Your task to perform on an android device: toggle data saver in the chrome app Image 0: 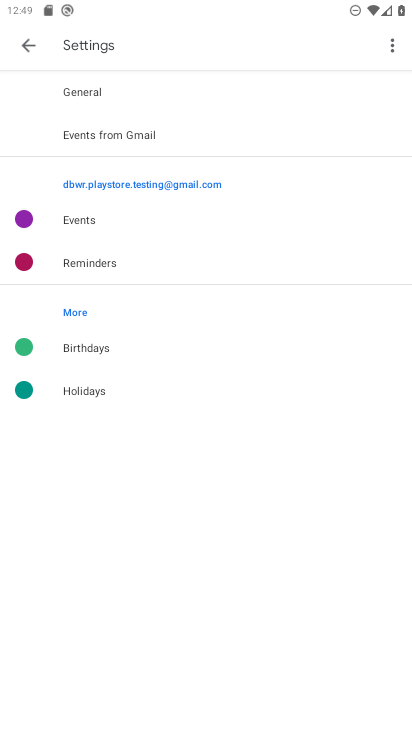
Step 0: drag from (185, 470) to (245, 204)
Your task to perform on an android device: toggle data saver in the chrome app Image 1: 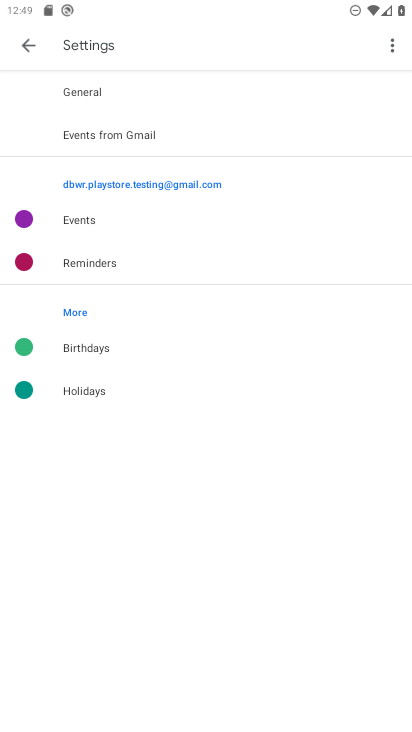
Step 1: press home button
Your task to perform on an android device: toggle data saver in the chrome app Image 2: 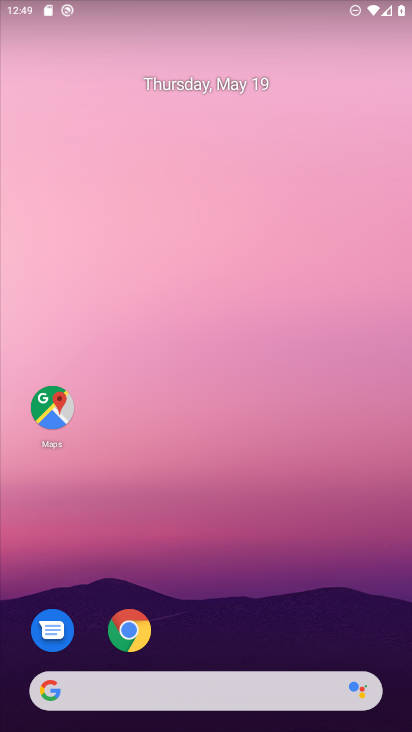
Step 2: drag from (173, 611) to (239, 119)
Your task to perform on an android device: toggle data saver in the chrome app Image 3: 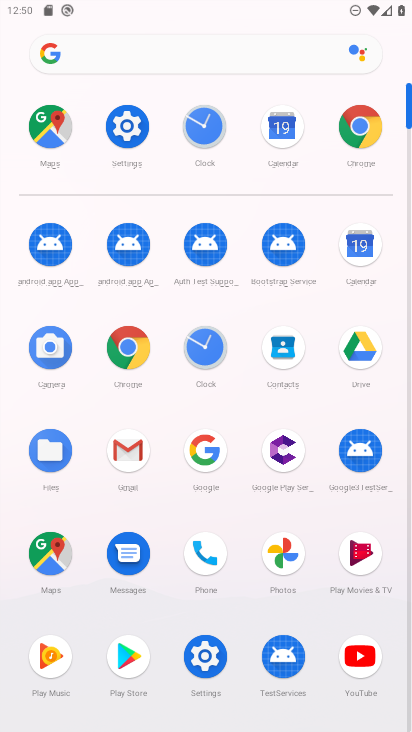
Step 3: drag from (205, 630) to (251, 147)
Your task to perform on an android device: toggle data saver in the chrome app Image 4: 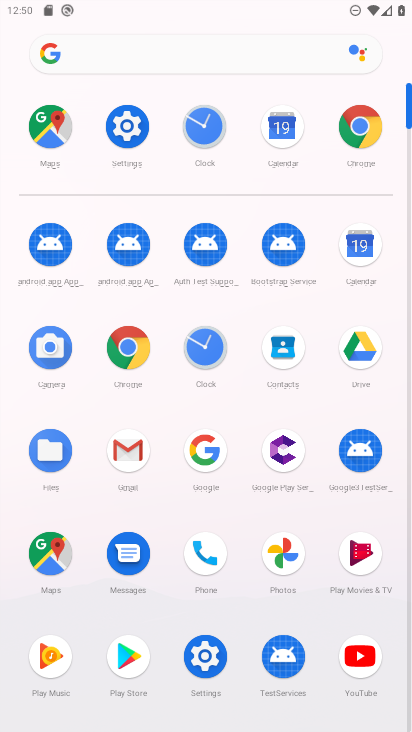
Step 4: click (132, 328)
Your task to perform on an android device: toggle data saver in the chrome app Image 5: 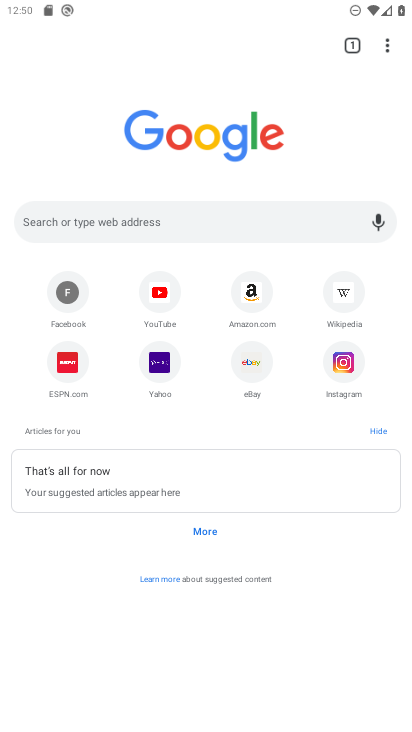
Step 5: click (381, 37)
Your task to perform on an android device: toggle data saver in the chrome app Image 6: 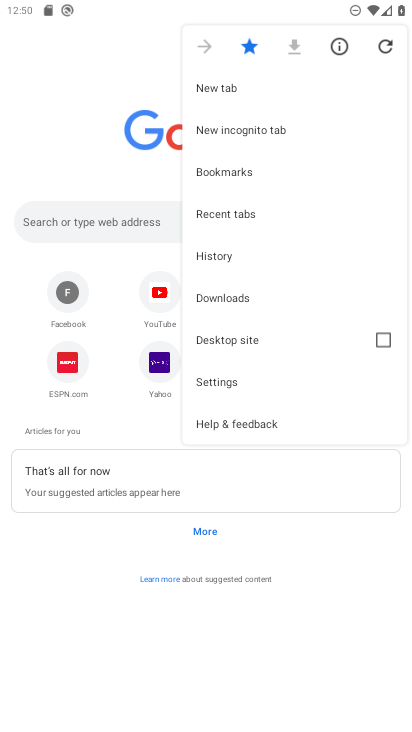
Step 6: click (232, 391)
Your task to perform on an android device: toggle data saver in the chrome app Image 7: 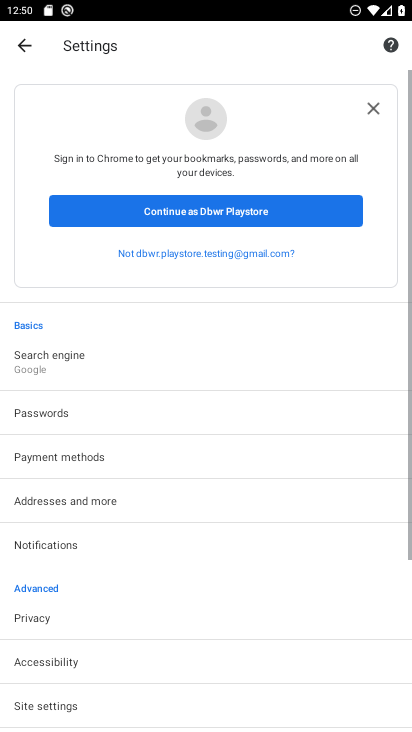
Step 7: drag from (200, 580) to (298, 70)
Your task to perform on an android device: toggle data saver in the chrome app Image 8: 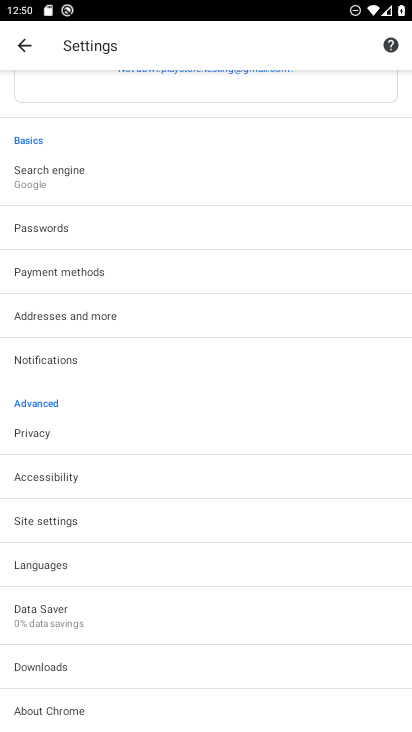
Step 8: click (81, 615)
Your task to perform on an android device: toggle data saver in the chrome app Image 9: 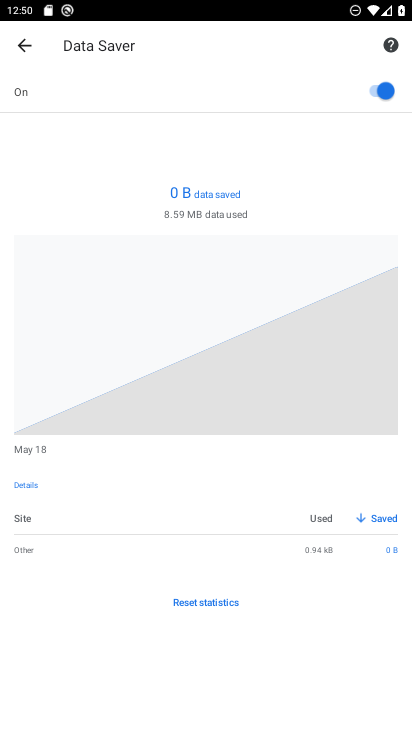
Step 9: drag from (104, 598) to (265, 127)
Your task to perform on an android device: toggle data saver in the chrome app Image 10: 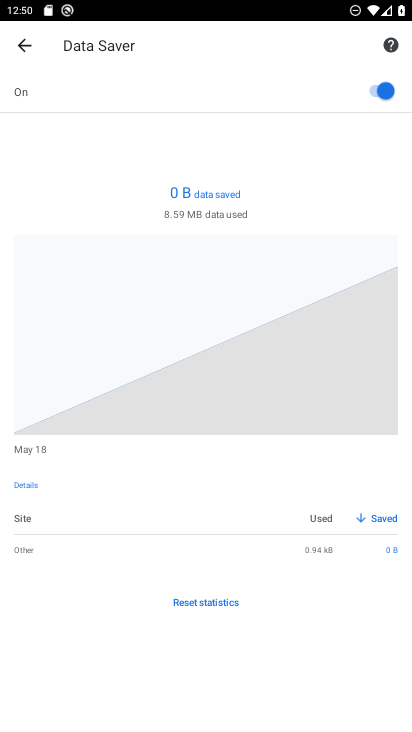
Step 10: click (377, 90)
Your task to perform on an android device: toggle data saver in the chrome app Image 11: 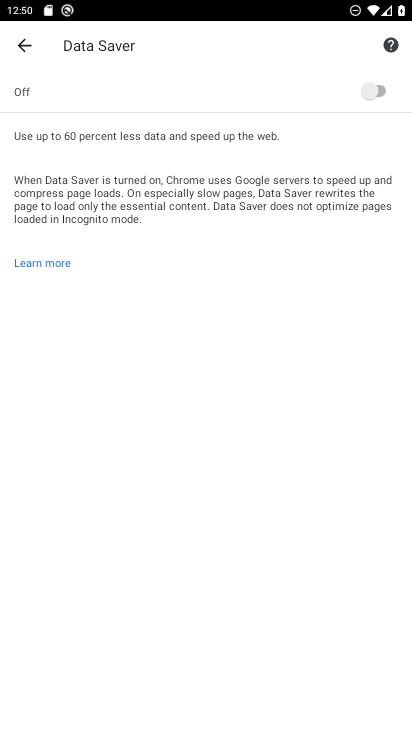
Step 11: task complete